Your task to perform on an android device: install app "Nova Launcher" Image 0: 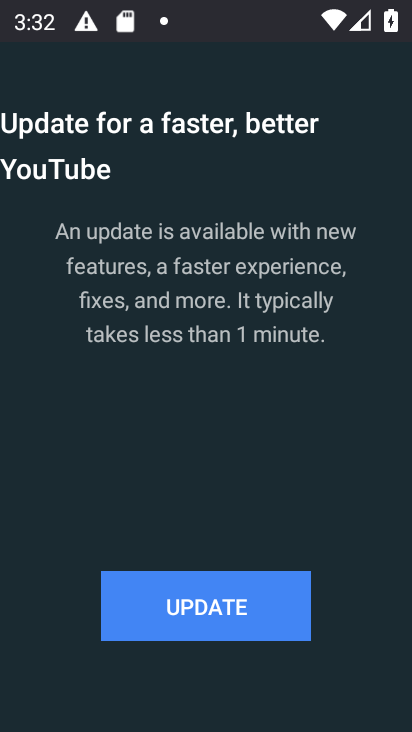
Step 0: press home button
Your task to perform on an android device: install app "Nova Launcher" Image 1: 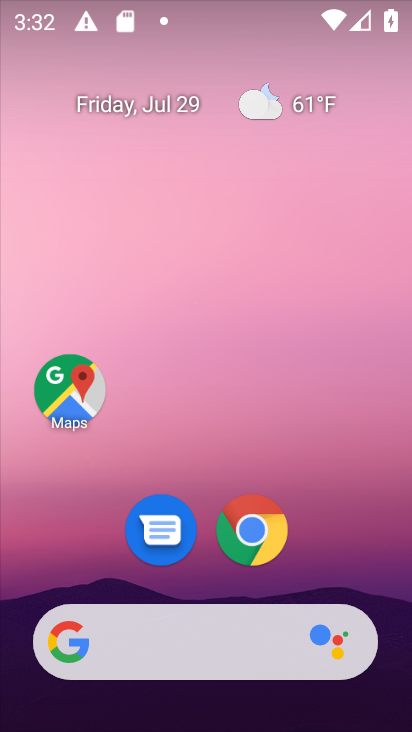
Step 1: drag from (361, 450) to (363, 5)
Your task to perform on an android device: install app "Nova Launcher" Image 2: 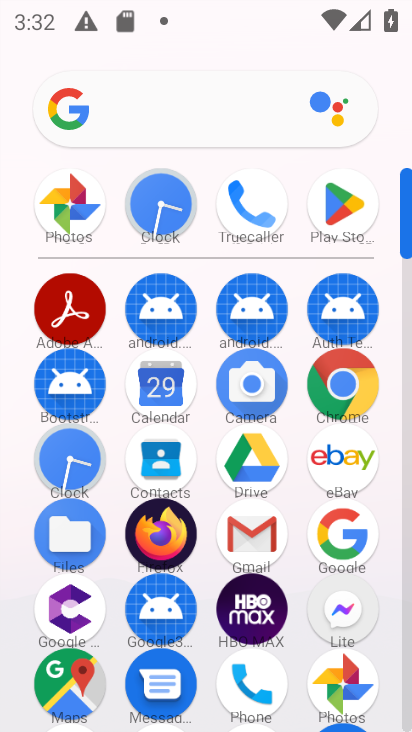
Step 2: click (341, 201)
Your task to perform on an android device: install app "Nova Launcher" Image 3: 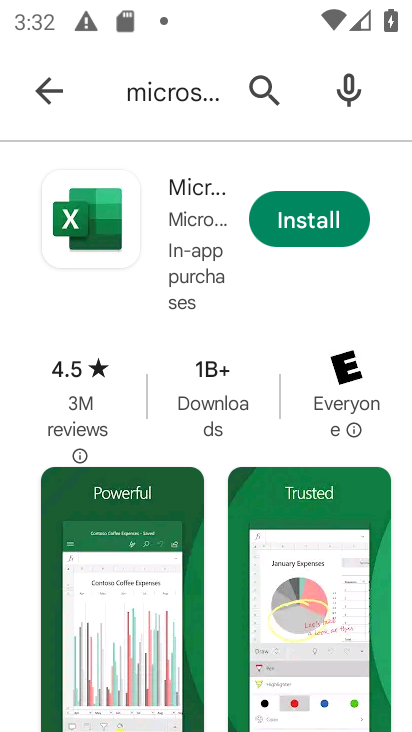
Step 3: click (251, 85)
Your task to perform on an android device: install app "Nova Launcher" Image 4: 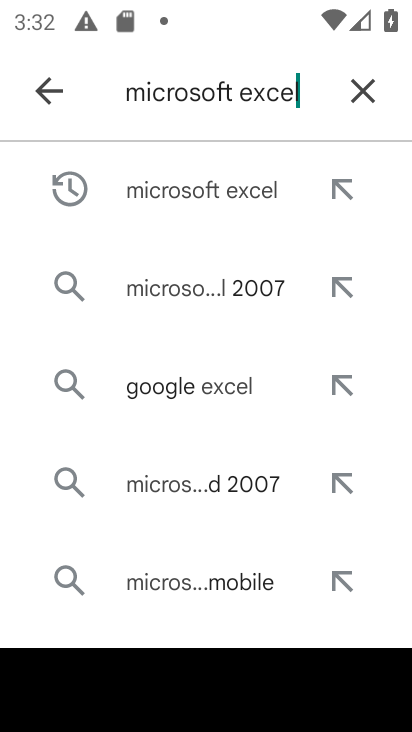
Step 4: click (349, 103)
Your task to perform on an android device: install app "Nova Launcher" Image 5: 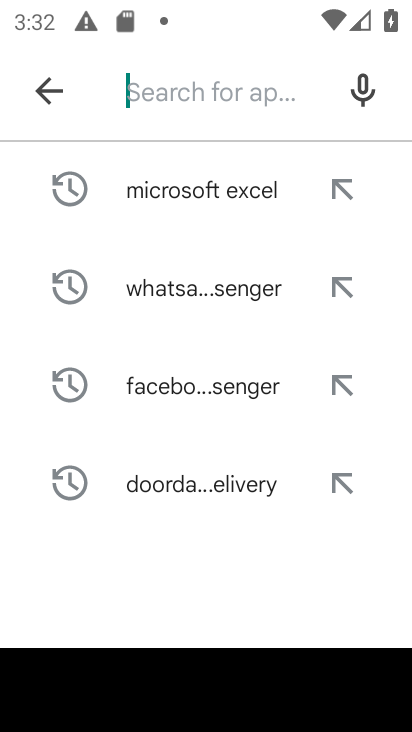
Step 5: click (135, 101)
Your task to perform on an android device: install app "Nova Launcher" Image 6: 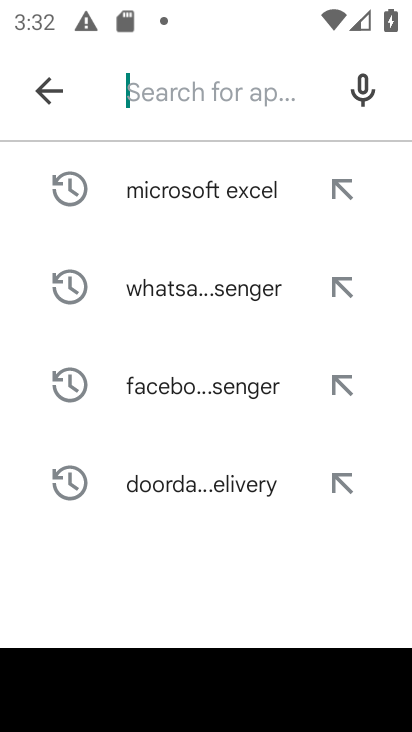
Step 6: type "Nova Launcher"
Your task to perform on an android device: install app "Nova Launcher" Image 7: 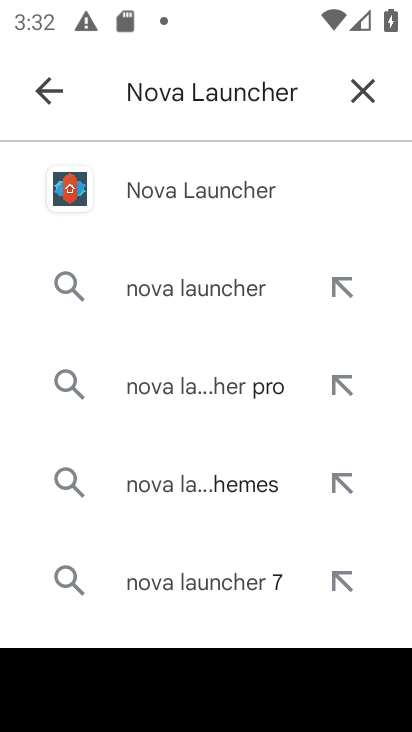
Step 7: click (244, 200)
Your task to perform on an android device: install app "Nova Launcher" Image 8: 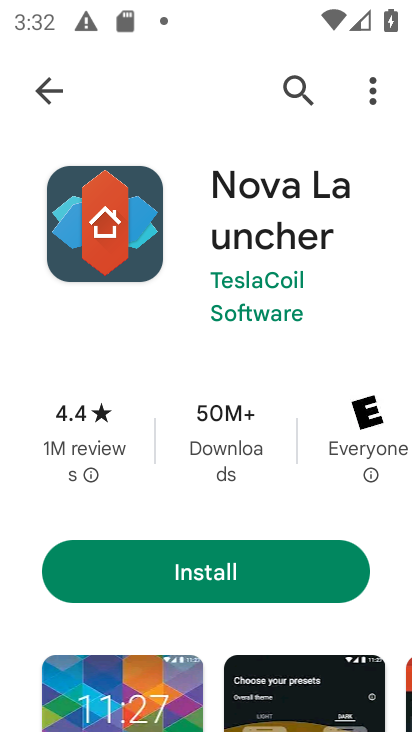
Step 8: click (212, 590)
Your task to perform on an android device: install app "Nova Launcher" Image 9: 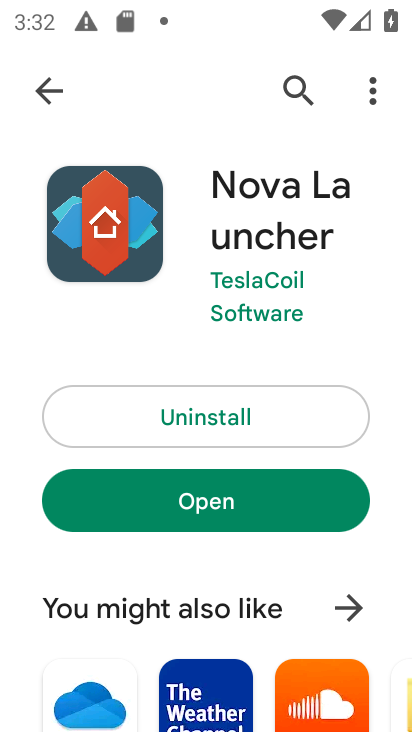
Step 9: task complete